Your task to perform on an android device: Find coffee shops on Maps Image 0: 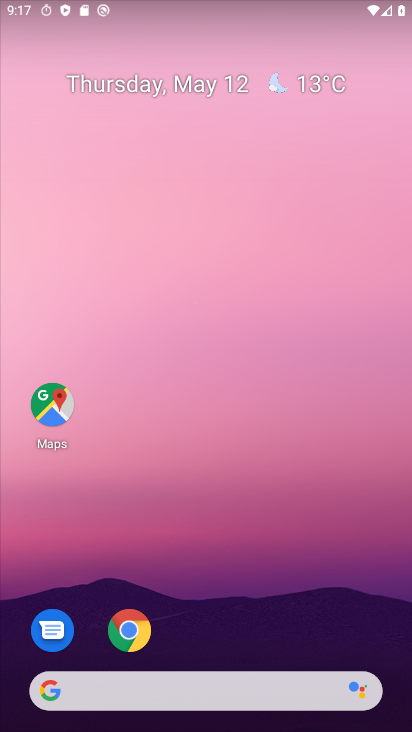
Step 0: click (45, 407)
Your task to perform on an android device: Find coffee shops on Maps Image 1: 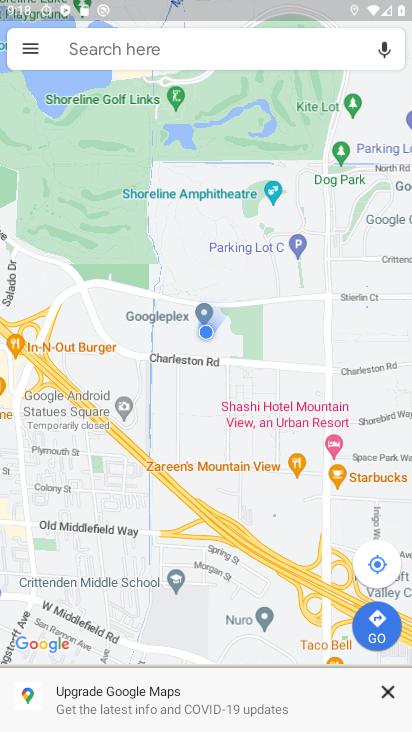
Step 1: click (201, 53)
Your task to perform on an android device: Find coffee shops on Maps Image 2: 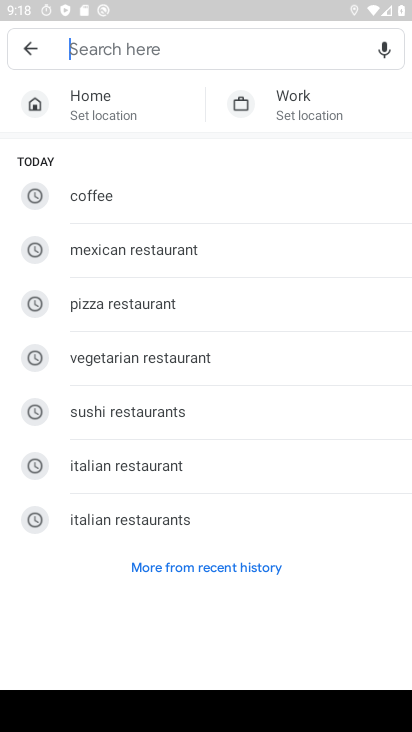
Step 2: click (141, 176)
Your task to perform on an android device: Find coffee shops on Maps Image 3: 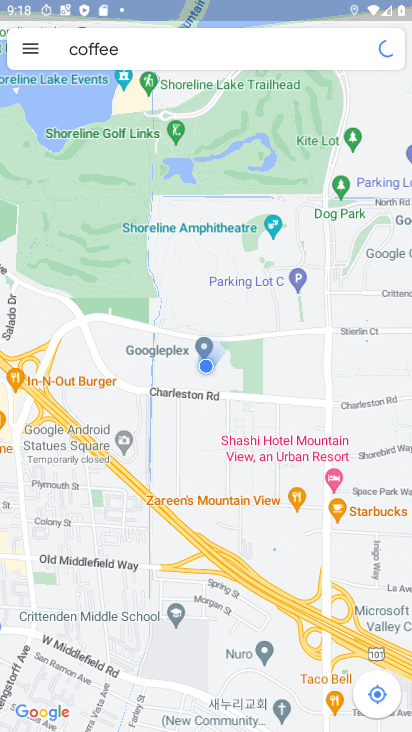
Step 3: task complete